Your task to perform on an android device: Go to Amazon Image 0: 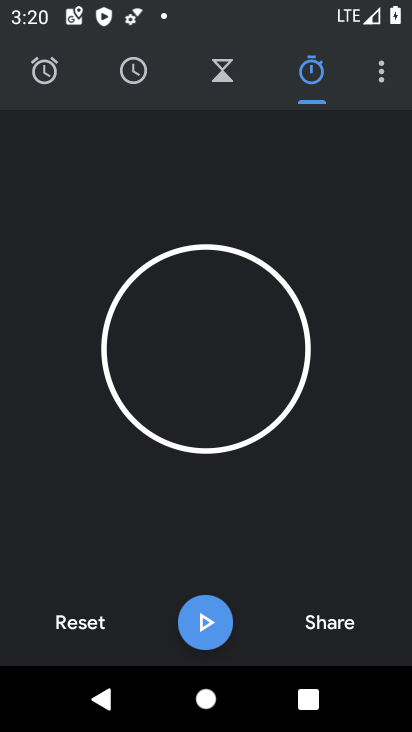
Step 0: press home button
Your task to perform on an android device: Go to Amazon Image 1: 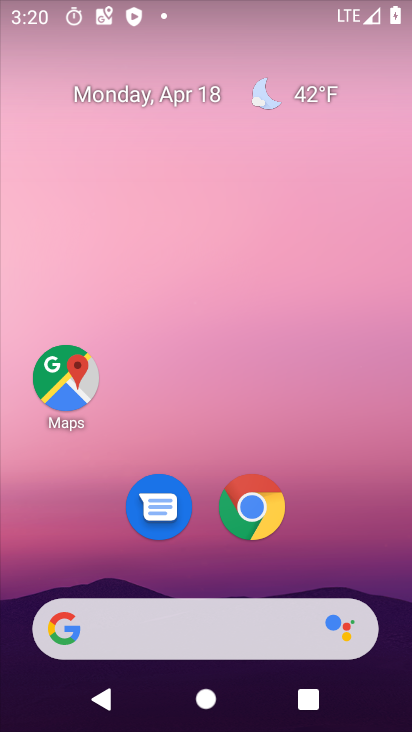
Step 1: click (272, 517)
Your task to perform on an android device: Go to Amazon Image 2: 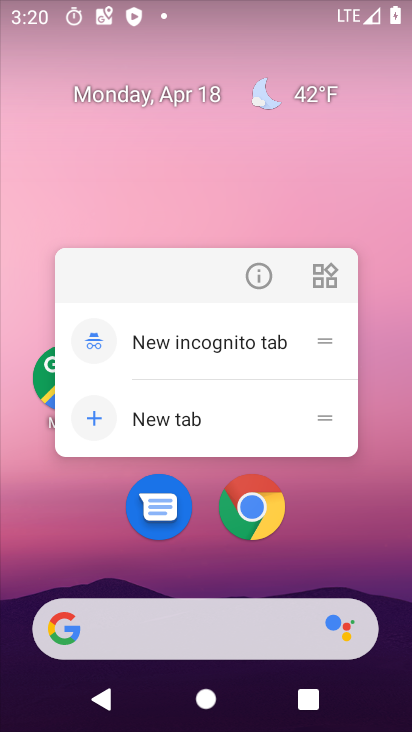
Step 2: click (274, 514)
Your task to perform on an android device: Go to Amazon Image 3: 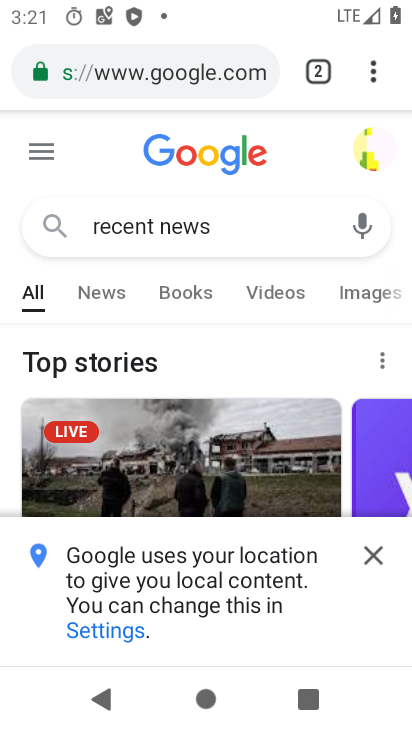
Step 3: click (324, 78)
Your task to perform on an android device: Go to Amazon Image 4: 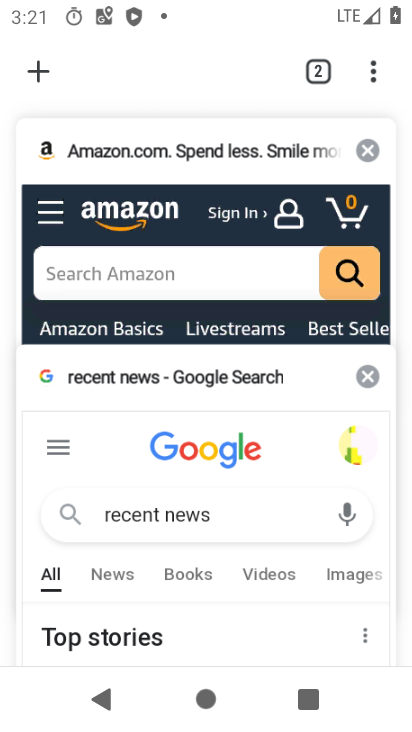
Step 4: click (41, 79)
Your task to perform on an android device: Go to Amazon Image 5: 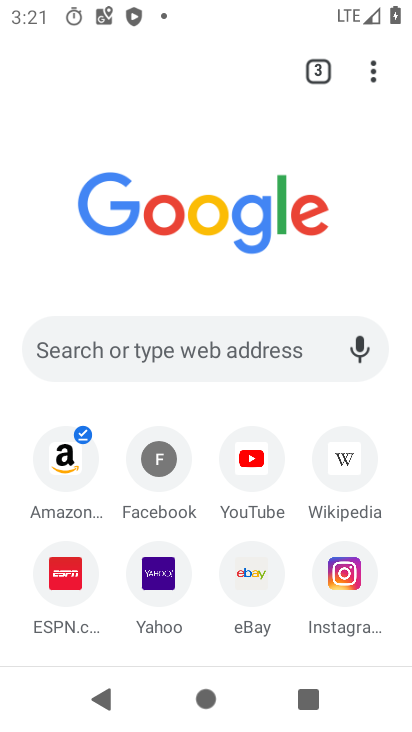
Step 5: click (228, 336)
Your task to perform on an android device: Go to Amazon Image 6: 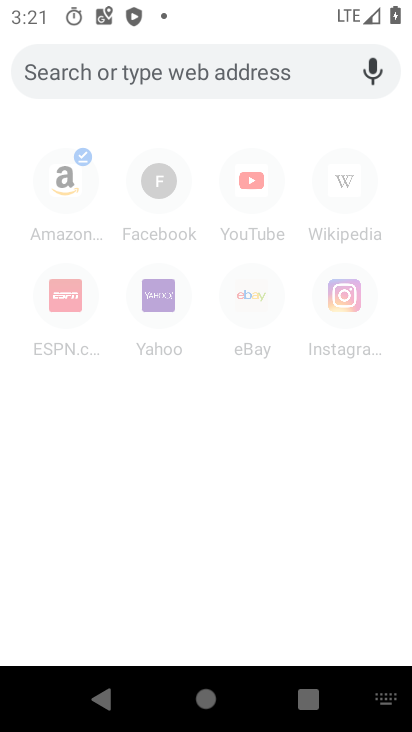
Step 6: type "amazon"
Your task to perform on an android device: Go to Amazon Image 7: 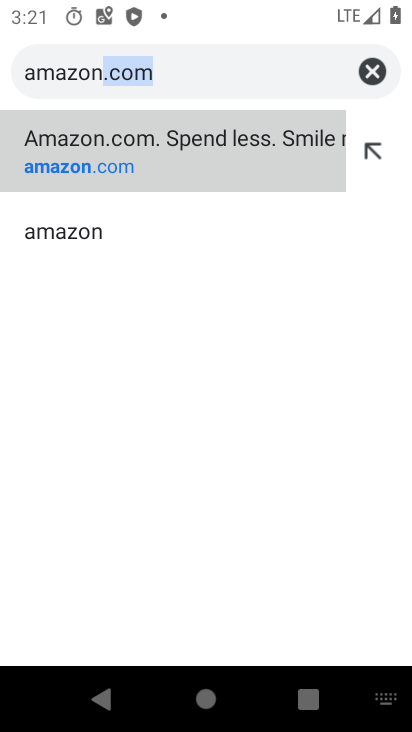
Step 7: click (93, 133)
Your task to perform on an android device: Go to Amazon Image 8: 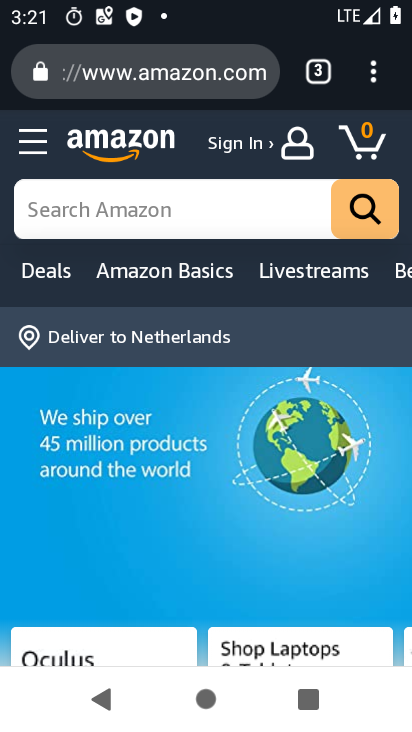
Step 8: task complete